Your task to perform on an android device: uninstall "Venmo" Image 0: 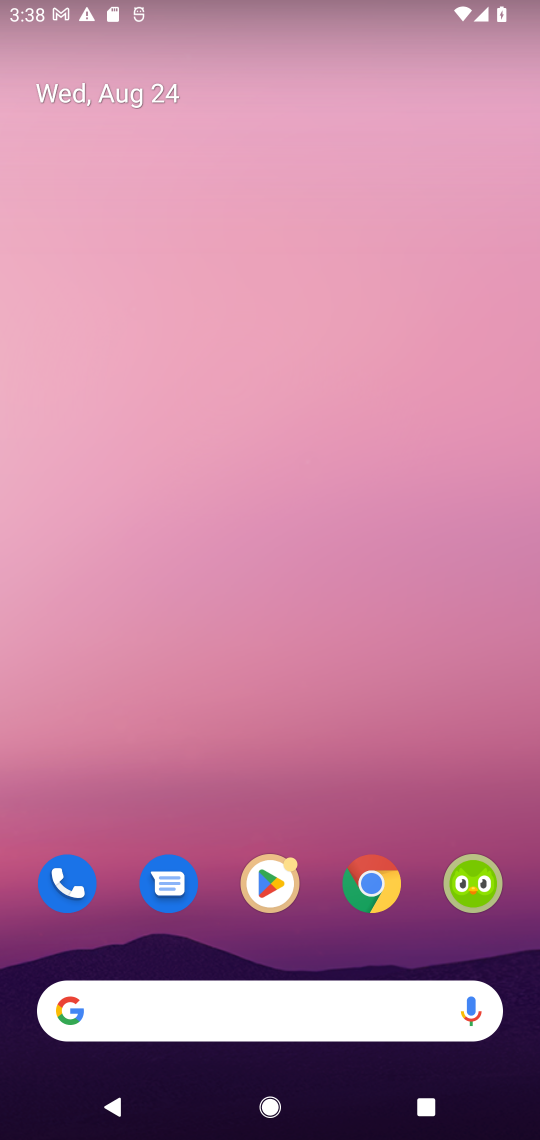
Step 0: drag from (298, 922) to (268, 333)
Your task to perform on an android device: uninstall "Venmo" Image 1: 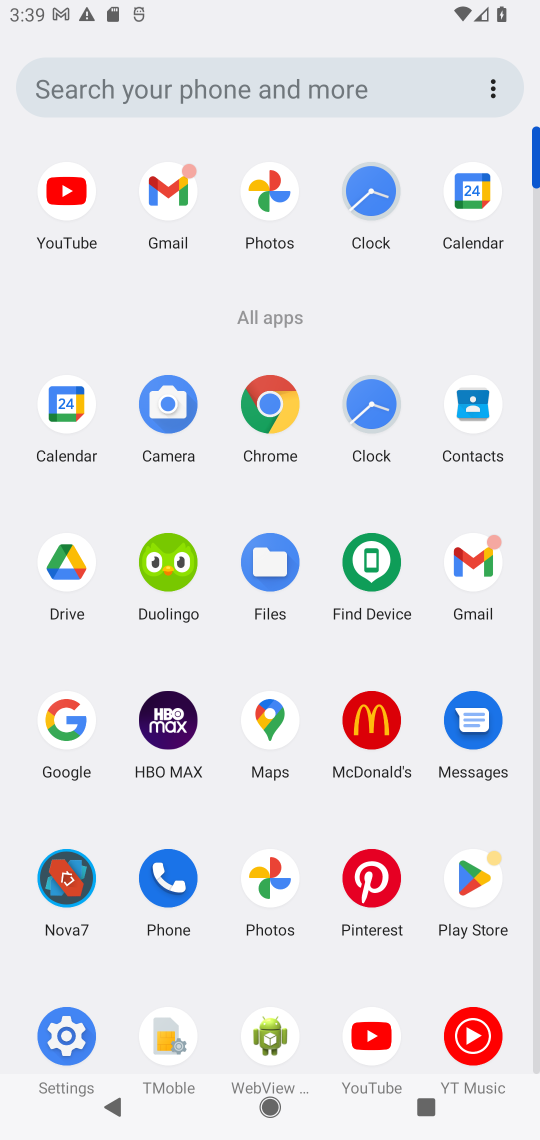
Step 1: press home button
Your task to perform on an android device: uninstall "Venmo" Image 2: 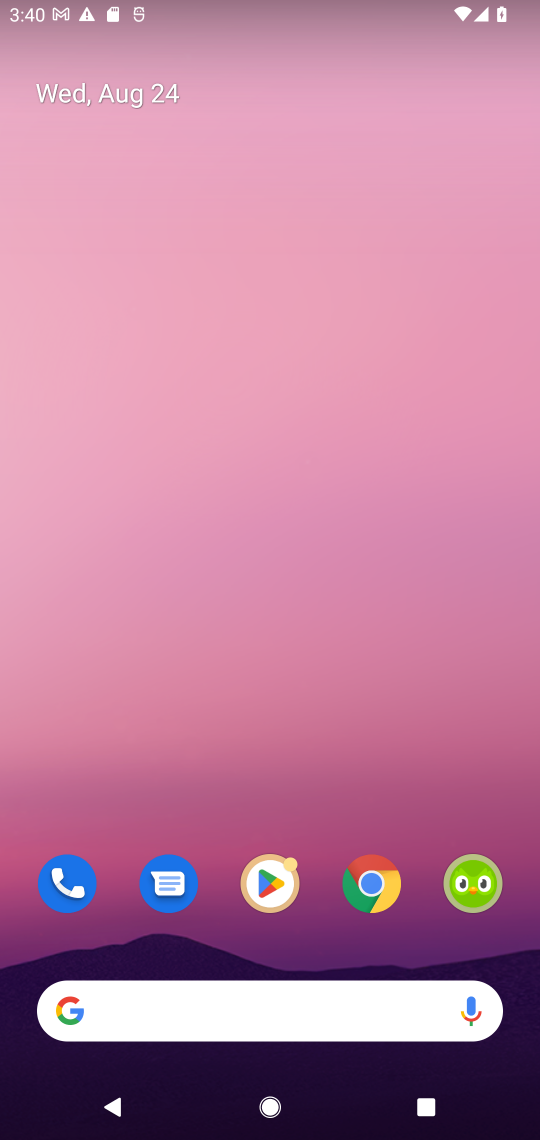
Step 2: drag from (262, 998) to (213, 389)
Your task to perform on an android device: uninstall "Venmo" Image 3: 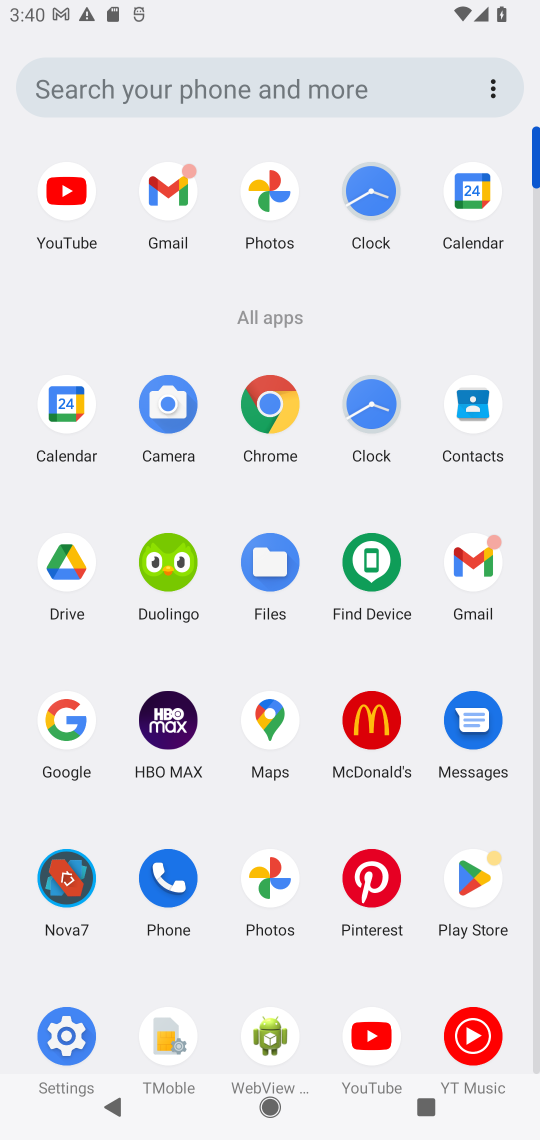
Step 3: click (471, 880)
Your task to perform on an android device: uninstall "Venmo" Image 4: 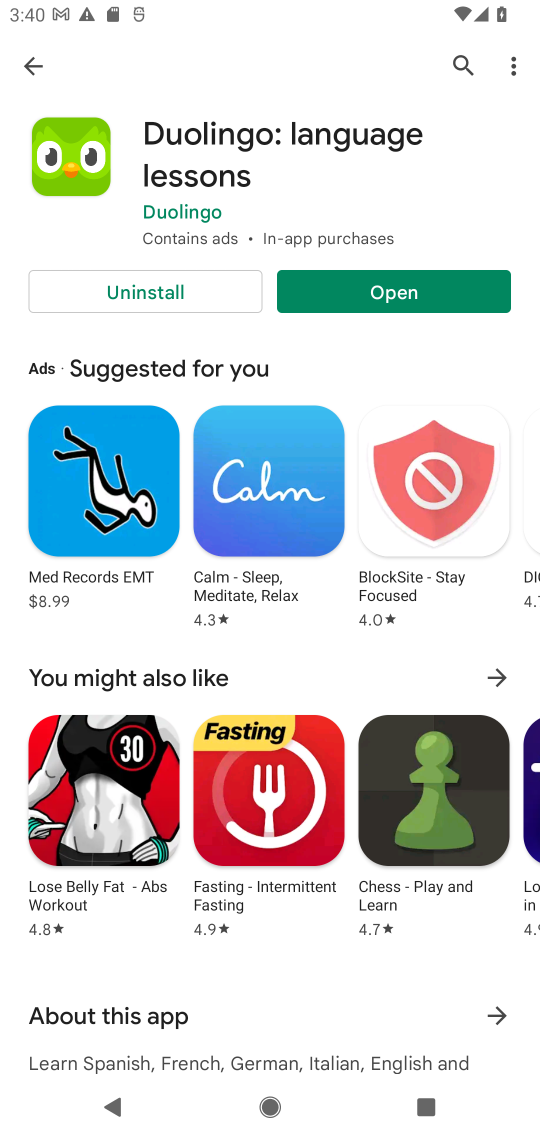
Step 4: click (469, 73)
Your task to perform on an android device: uninstall "Venmo" Image 5: 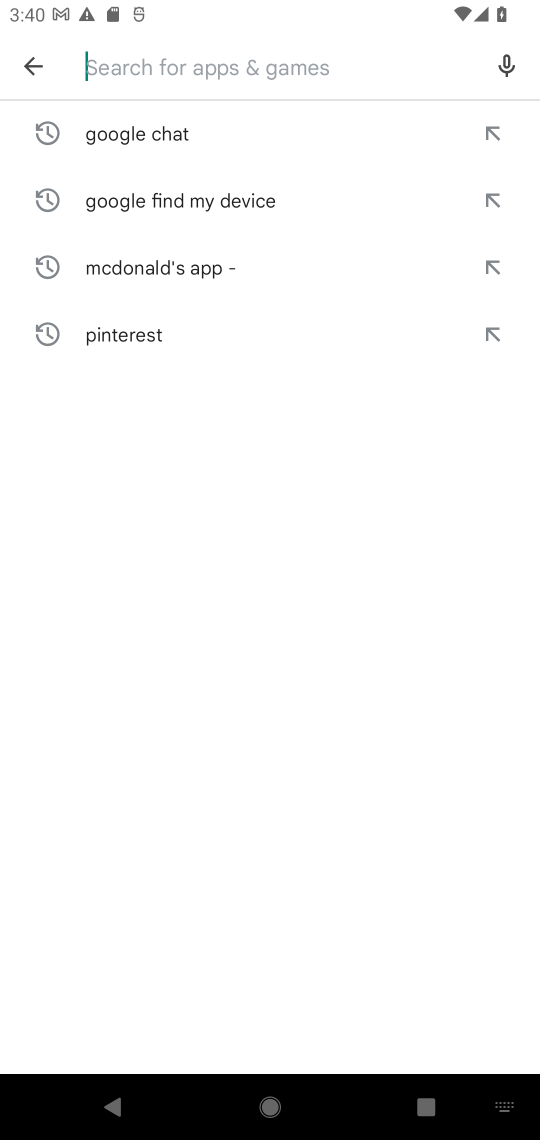
Step 5: type "Venmo"
Your task to perform on an android device: uninstall "Venmo" Image 6: 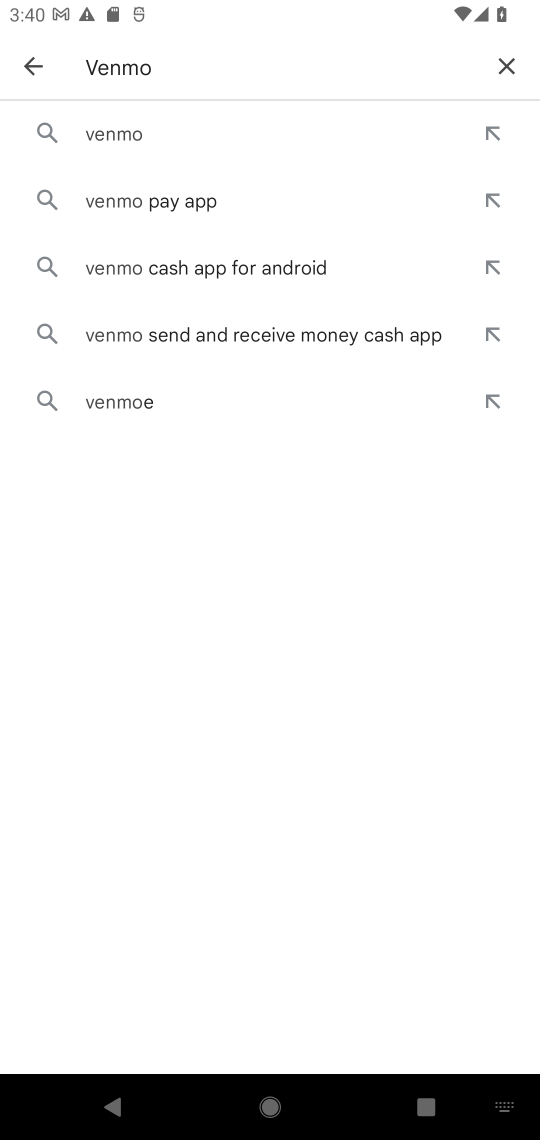
Step 6: click (75, 139)
Your task to perform on an android device: uninstall "Venmo" Image 7: 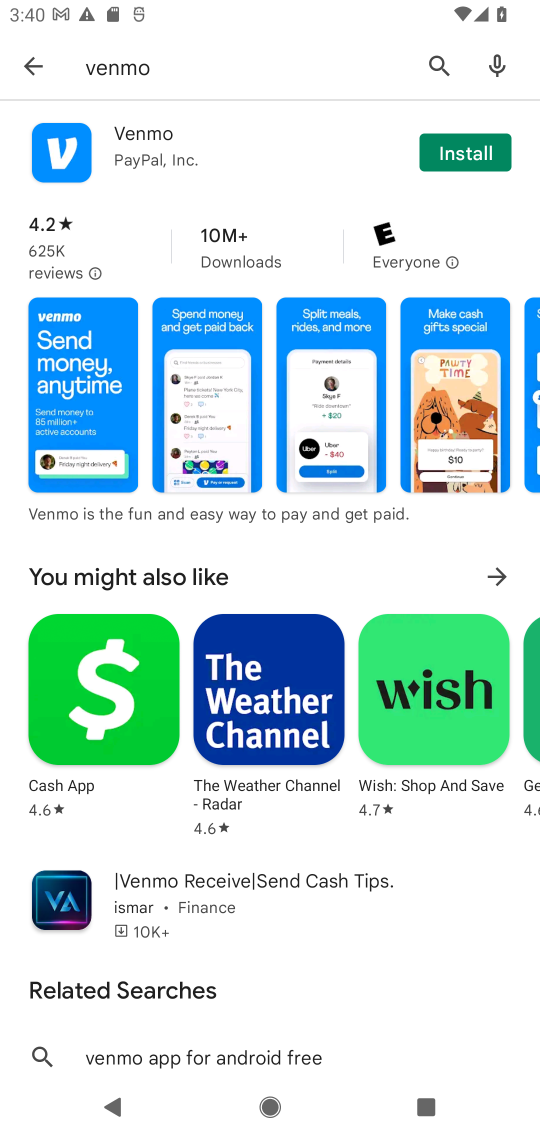
Step 7: task complete